Your task to perform on an android device: change timer sound Image 0: 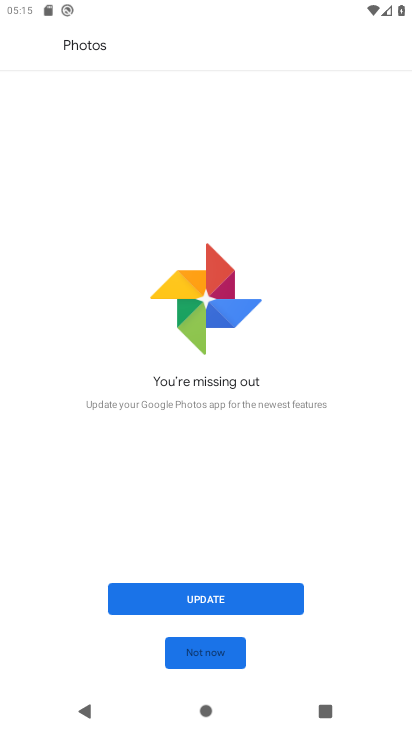
Step 0: press home button
Your task to perform on an android device: change timer sound Image 1: 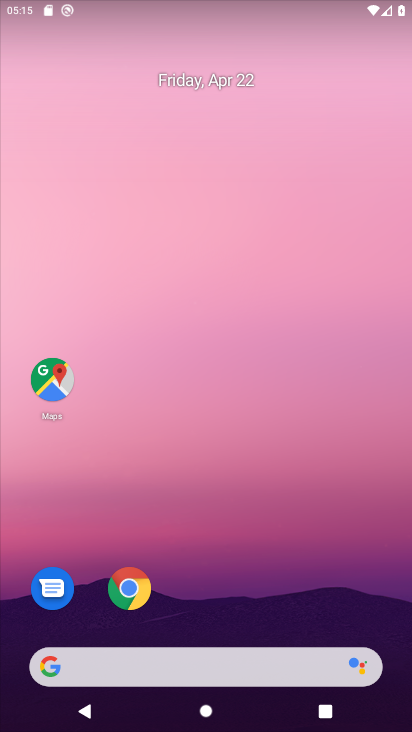
Step 1: drag from (284, 483) to (314, 65)
Your task to perform on an android device: change timer sound Image 2: 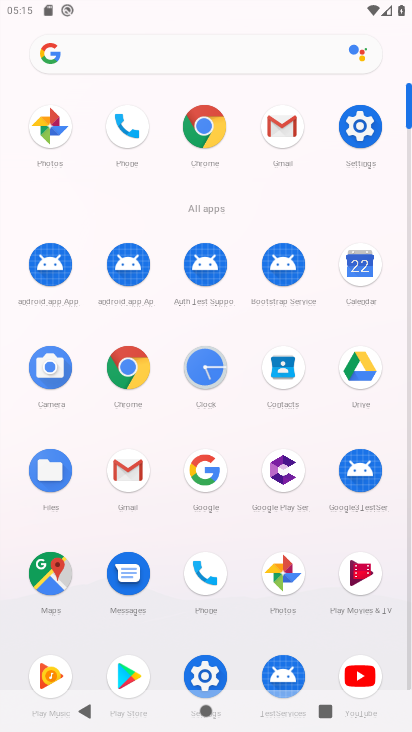
Step 2: click (205, 371)
Your task to perform on an android device: change timer sound Image 3: 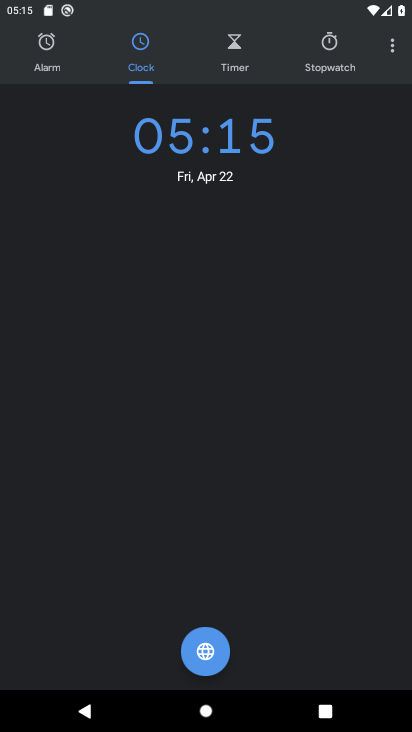
Step 3: click (388, 45)
Your task to perform on an android device: change timer sound Image 4: 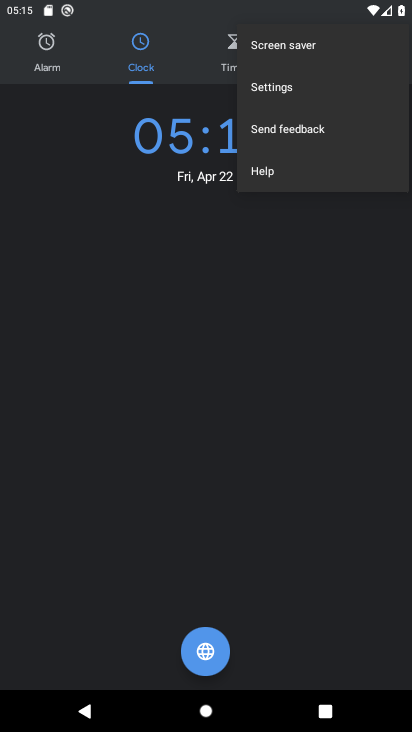
Step 4: click (279, 87)
Your task to perform on an android device: change timer sound Image 5: 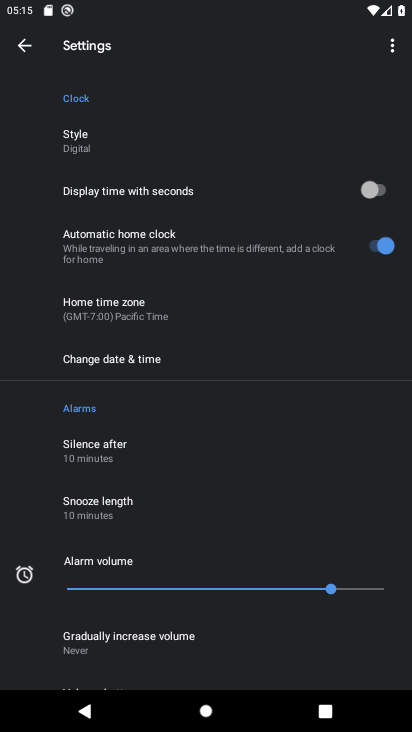
Step 5: drag from (253, 631) to (285, 261)
Your task to perform on an android device: change timer sound Image 6: 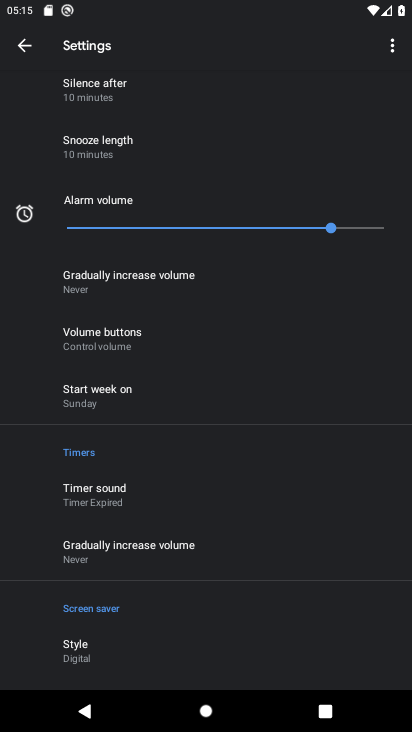
Step 6: click (110, 494)
Your task to perform on an android device: change timer sound Image 7: 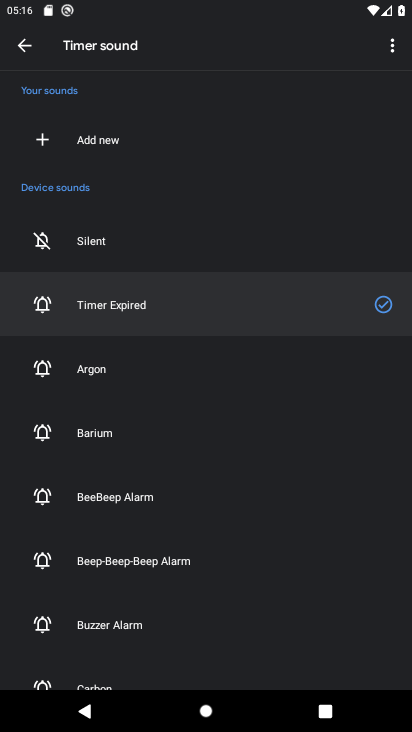
Step 7: click (150, 380)
Your task to perform on an android device: change timer sound Image 8: 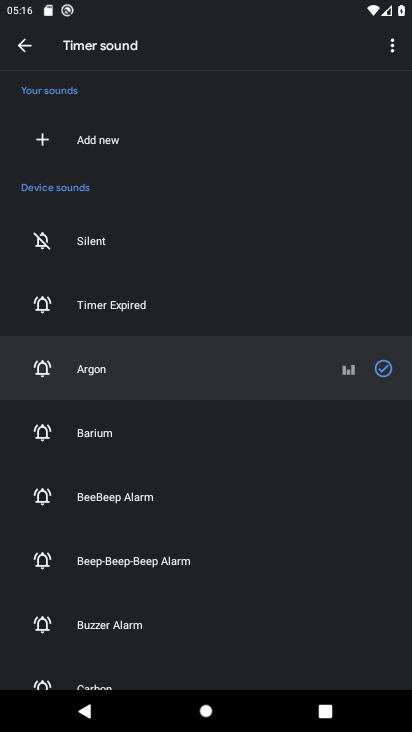
Step 8: click (134, 433)
Your task to perform on an android device: change timer sound Image 9: 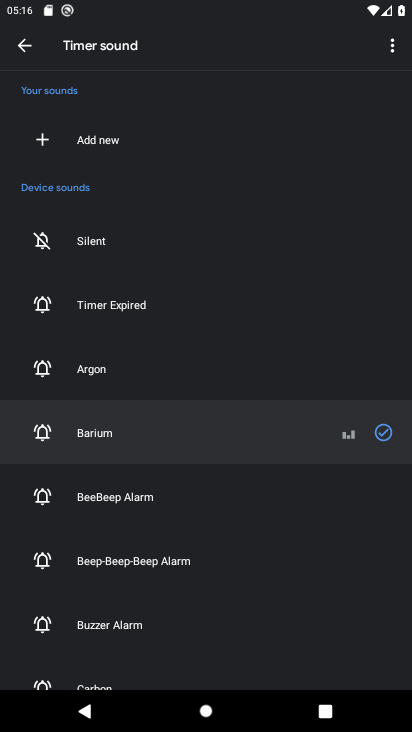
Step 9: task complete